Your task to perform on an android device: turn off sleep mode Image 0: 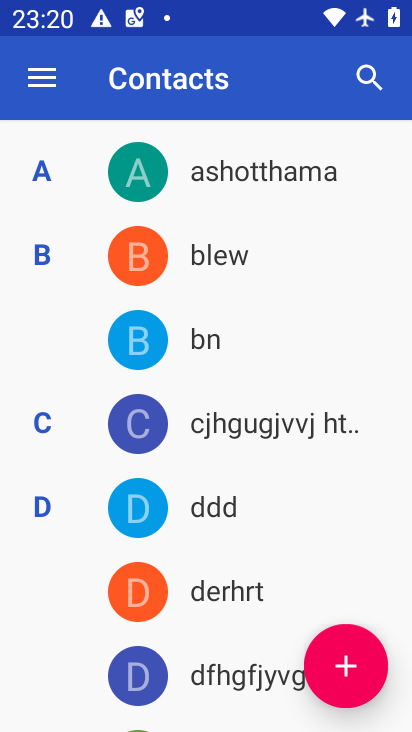
Step 0: press home button
Your task to perform on an android device: turn off sleep mode Image 1: 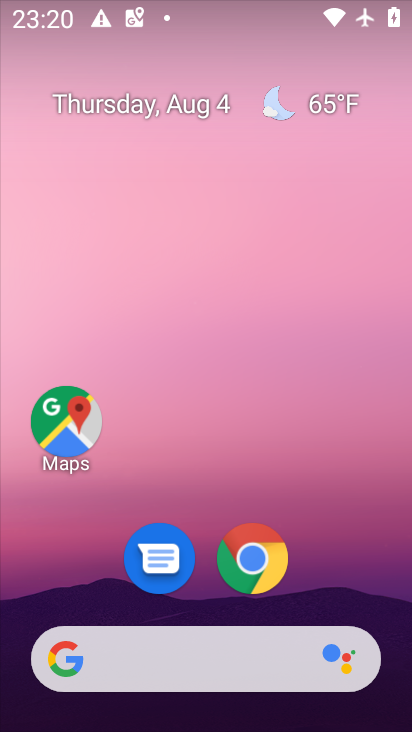
Step 1: drag from (377, 492) to (339, 90)
Your task to perform on an android device: turn off sleep mode Image 2: 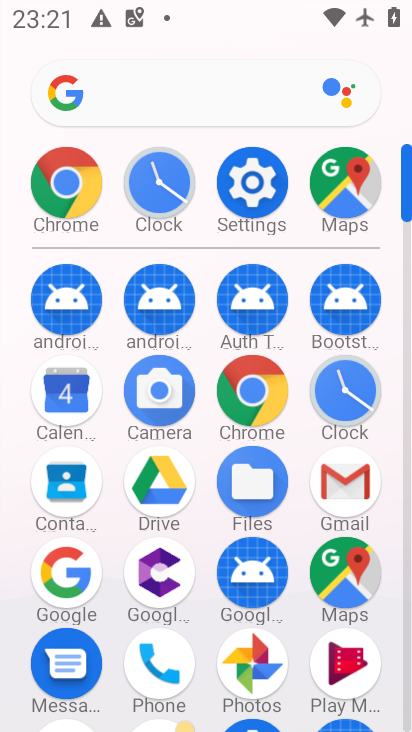
Step 2: click (265, 166)
Your task to perform on an android device: turn off sleep mode Image 3: 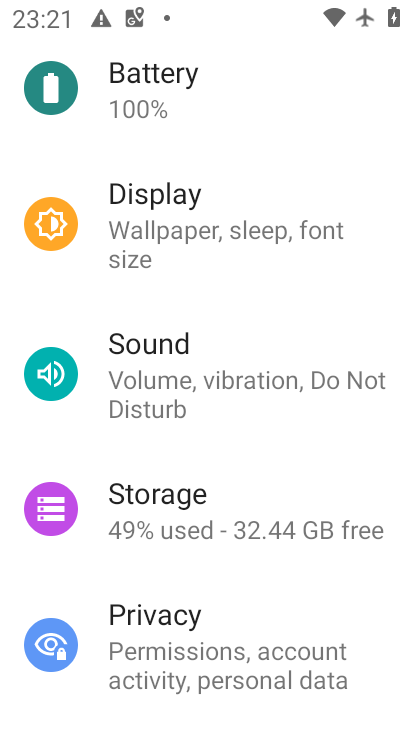
Step 3: drag from (287, 142) to (237, 628)
Your task to perform on an android device: turn off sleep mode Image 4: 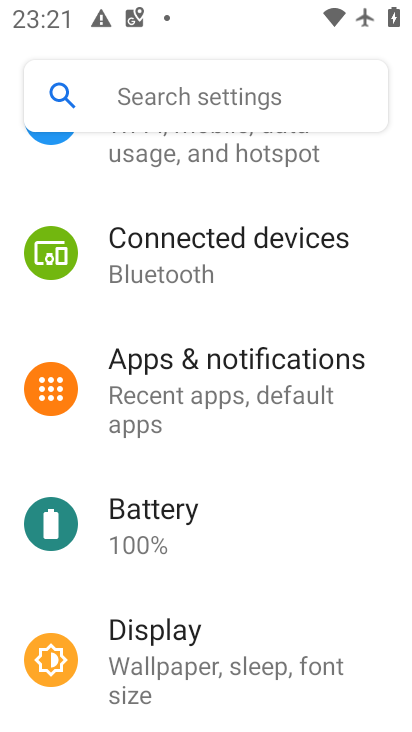
Step 4: drag from (316, 200) to (255, 470)
Your task to perform on an android device: turn off sleep mode Image 5: 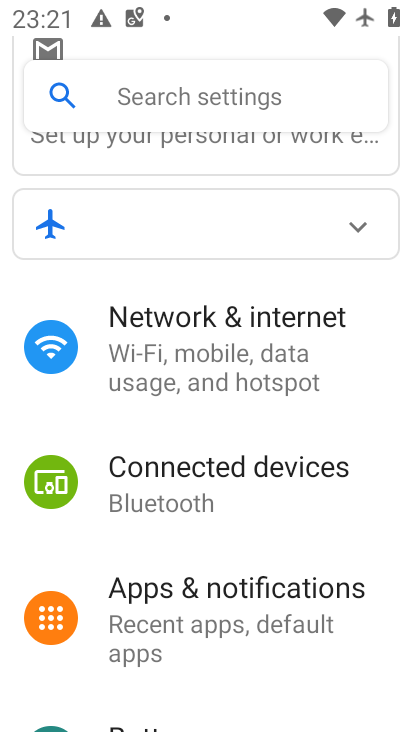
Step 5: drag from (275, 508) to (315, 178)
Your task to perform on an android device: turn off sleep mode Image 6: 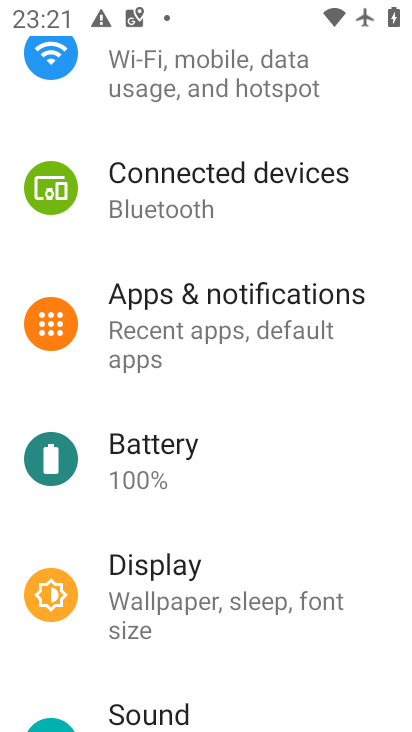
Step 6: click (174, 568)
Your task to perform on an android device: turn off sleep mode Image 7: 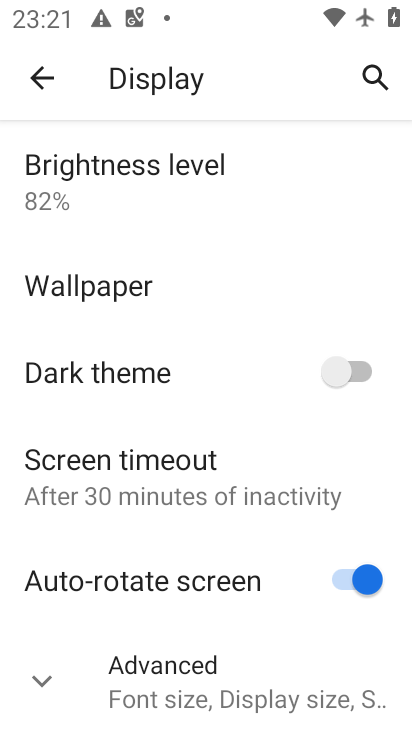
Step 7: drag from (213, 218) to (234, 118)
Your task to perform on an android device: turn off sleep mode Image 8: 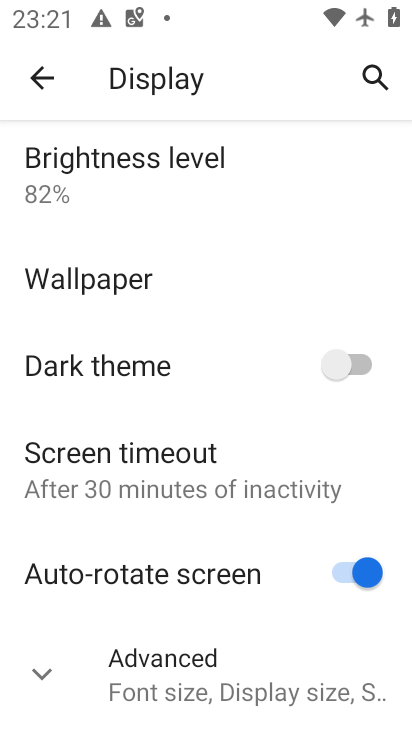
Step 8: click (170, 422)
Your task to perform on an android device: turn off sleep mode Image 9: 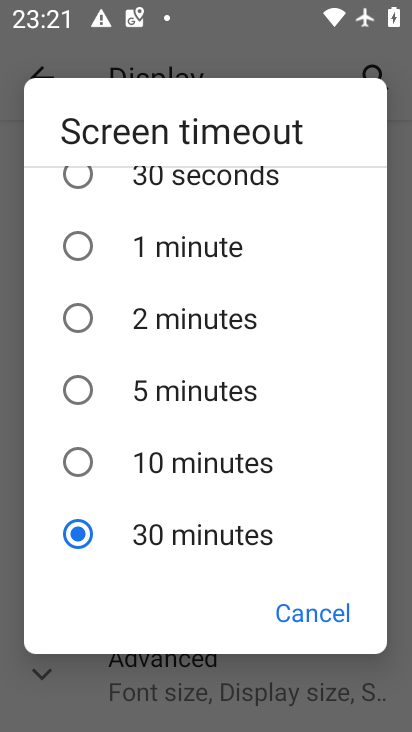
Step 9: task complete